Your task to perform on an android device: turn off improve location accuracy Image 0: 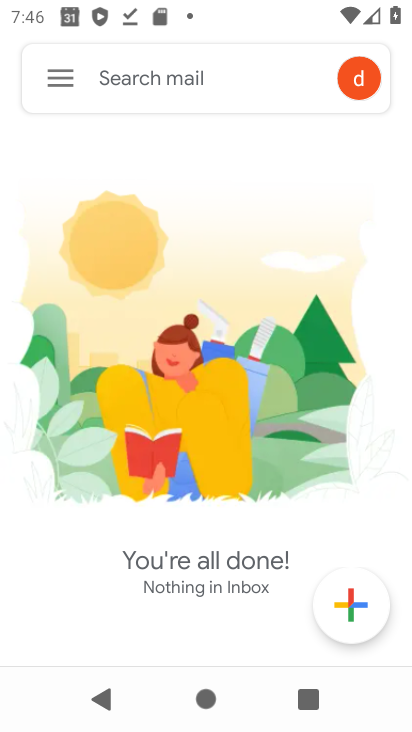
Step 0: press home button
Your task to perform on an android device: turn off improve location accuracy Image 1: 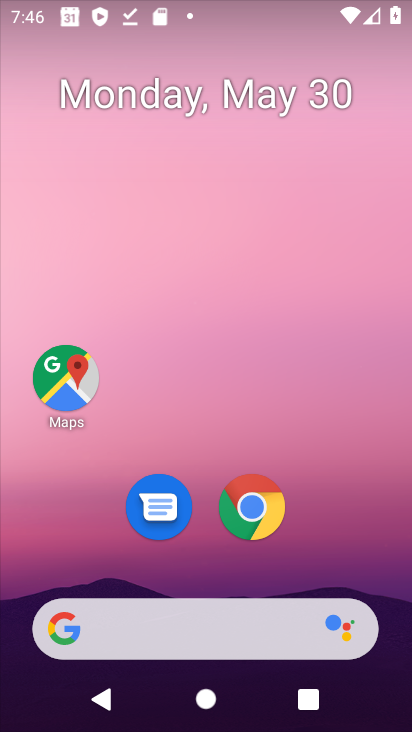
Step 1: drag from (343, 358) to (332, 142)
Your task to perform on an android device: turn off improve location accuracy Image 2: 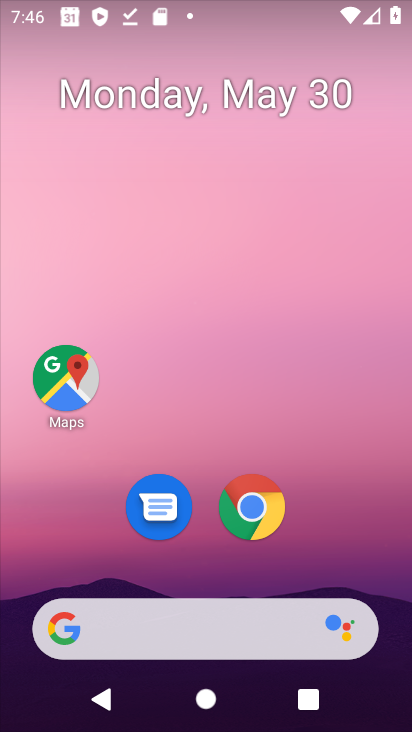
Step 2: drag from (346, 473) to (296, 148)
Your task to perform on an android device: turn off improve location accuracy Image 3: 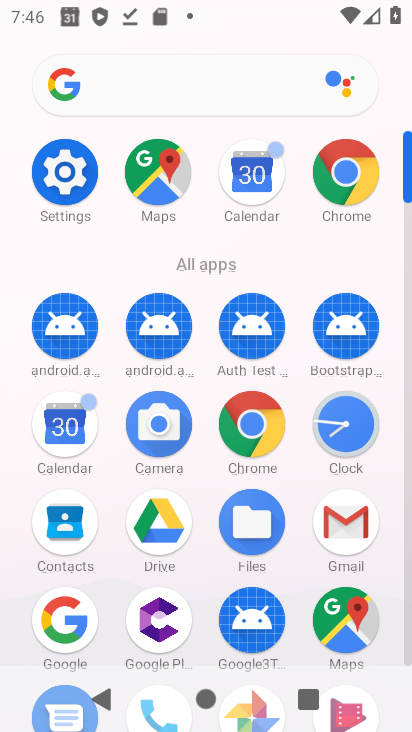
Step 3: click (63, 167)
Your task to perform on an android device: turn off improve location accuracy Image 4: 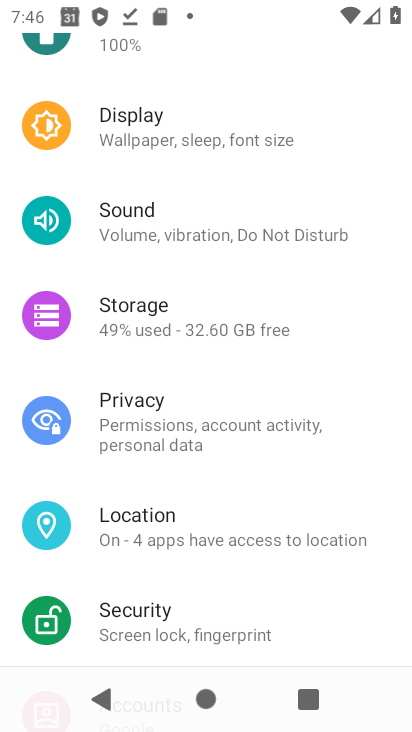
Step 4: drag from (260, 564) to (255, 332)
Your task to perform on an android device: turn off improve location accuracy Image 5: 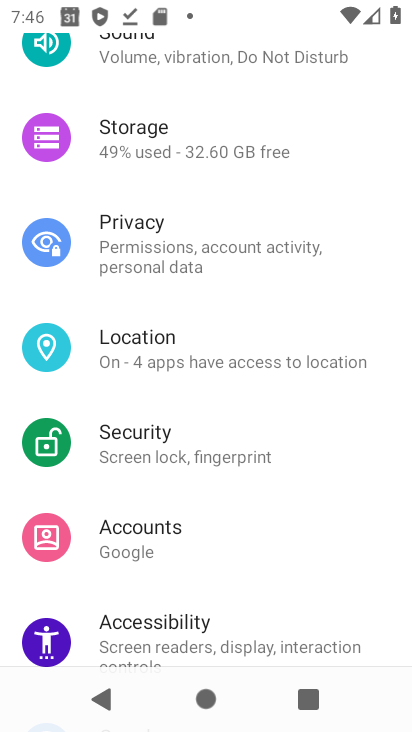
Step 5: click (249, 344)
Your task to perform on an android device: turn off improve location accuracy Image 6: 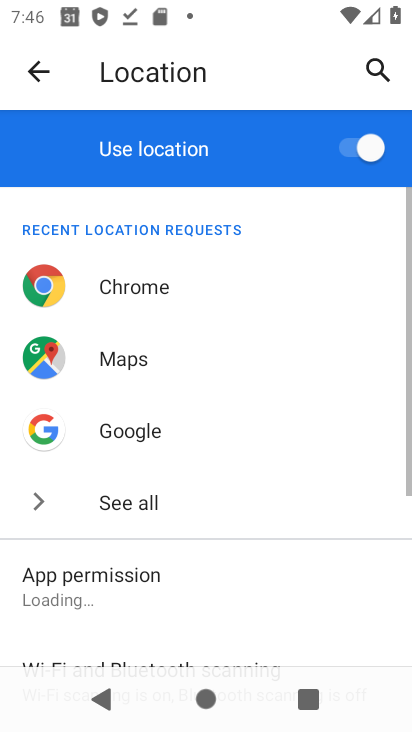
Step 6: drag from (289, 555) to (294, 314)
Your task to perform on an android device: turn off improve location accuracy Image 7: 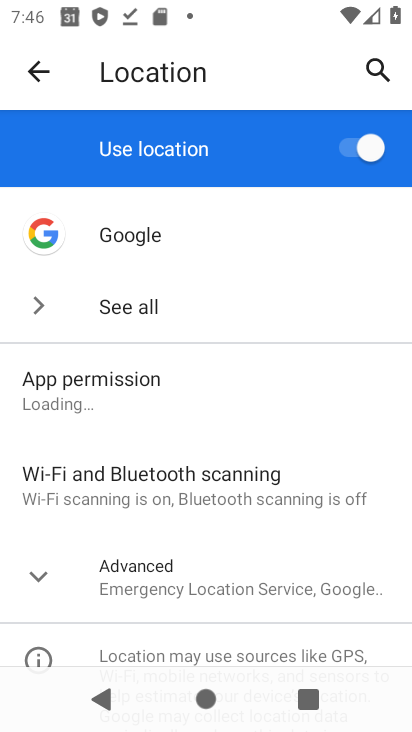
Step 7: click (351, 613)
Your task to perform on an android device: turn off improve location accuracy Image 8: 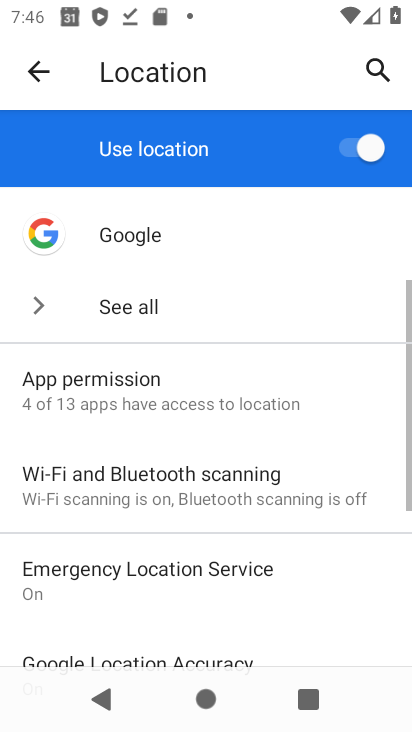
Step 8: drag from (303, 612) to (295, 379)
Your task to perform on an android device: turn off improve location accuracy Image 9: 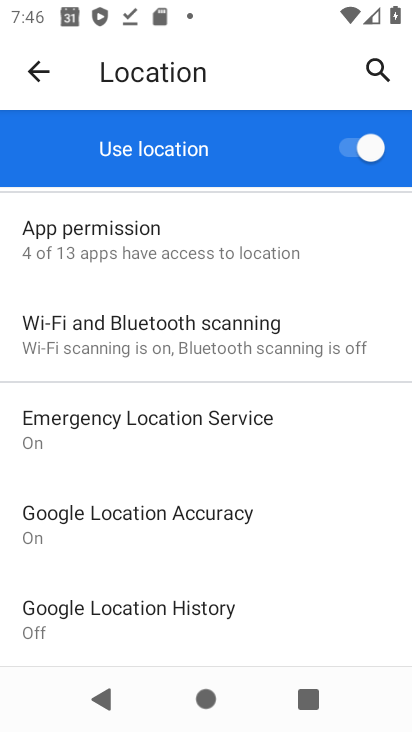
Step 9: click (211, 520)
Your task to perform on an android device: turn off improve location accuracy Image 10: 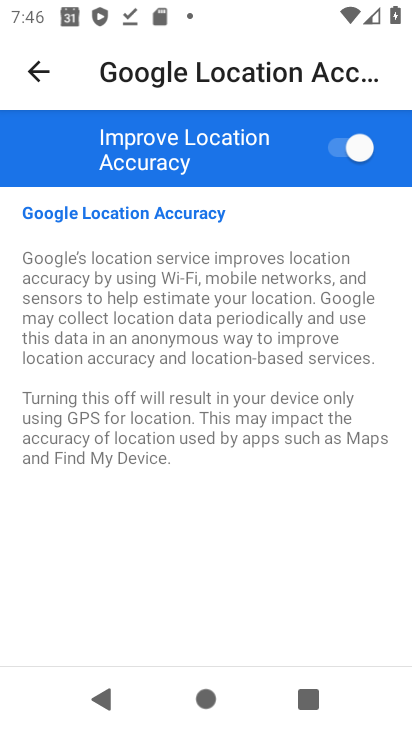
Step 10: click (343, 159)
Your task to perform on an android device: turn off improve location accuracy Image 11: 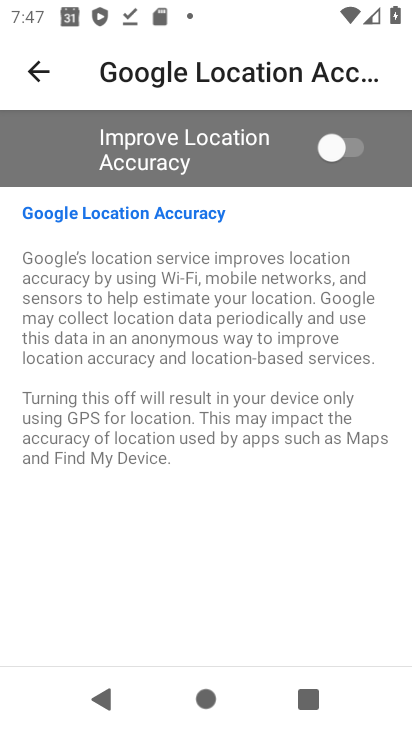
Step 11: task complete